Your task to perform on an android device: When is my next meeting? Image 0: 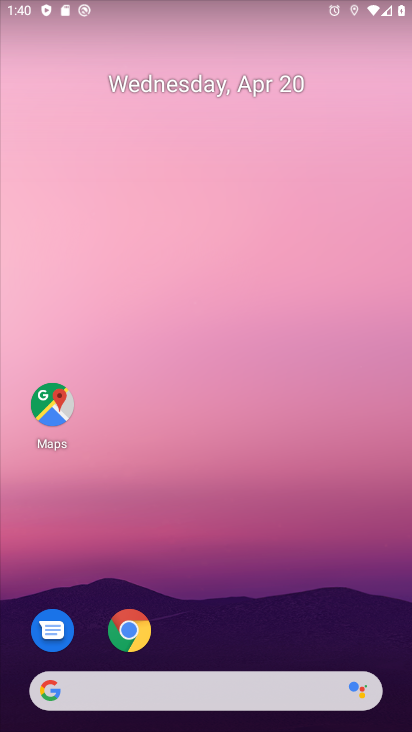
Step 0: drag from (230, 553) to (107, 104)
Your task to perform on an android device: When is my next meeting? Image 1: 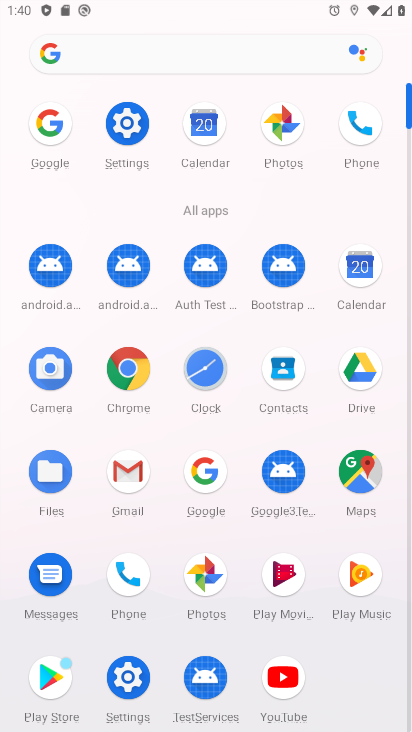
Step 1: click (355, 269)
Your task to perform on an android device: When is my next meeting? Image 2: 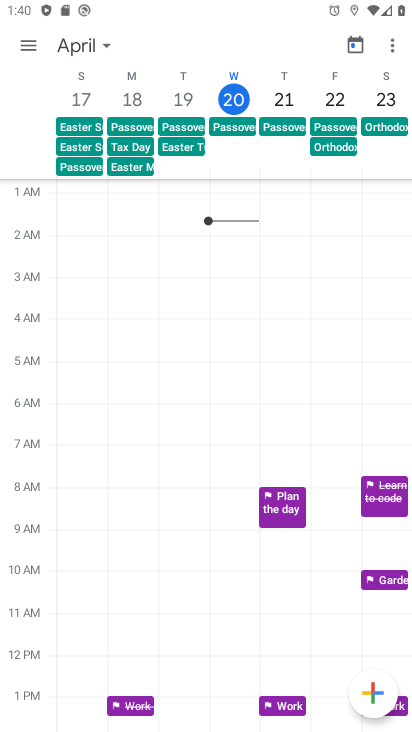
Step 2: drag from (240, 479) to (243, 242)
Your task to perform on an android device: When is my next meeting? Image 3: 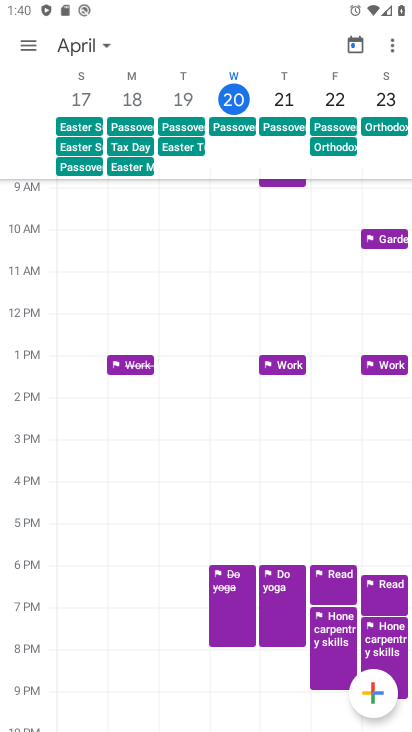
Step 3: drag from (239, 397) to (218, 609)
Your task to perform on an android device: When is my next meeting? Image 4: 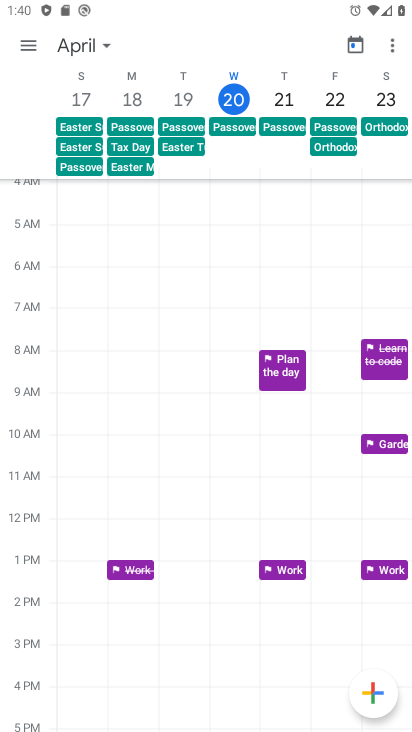
Step 4: drag from (241, 361) to (234, 576)
Your task to perform on an android device: When is my next meeting? Image 5: 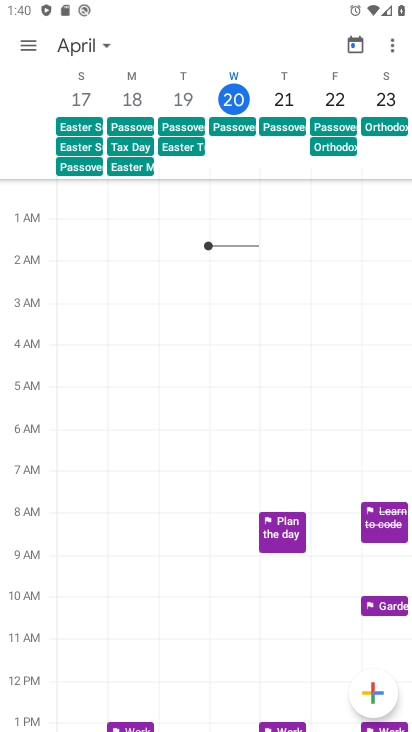
Step 5: drag from (239, 581) to (237, 283)
Your task to perform on an android device: When is my next meeting? Image 6: 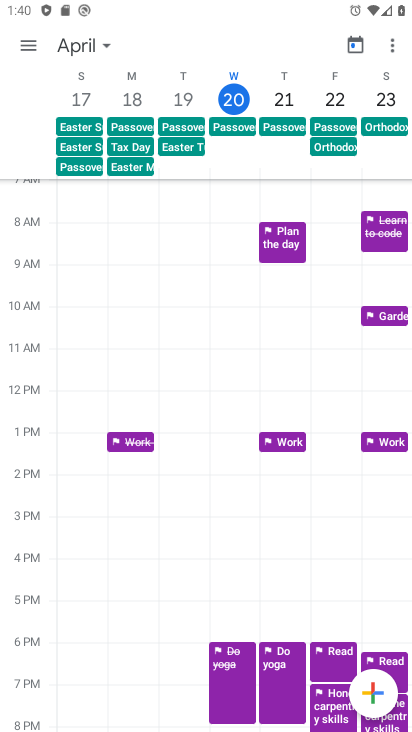
Step 6: drag from (222, 581) to (230, 319)
Your task to perform on an android device: When is my next meeting? Image 7: 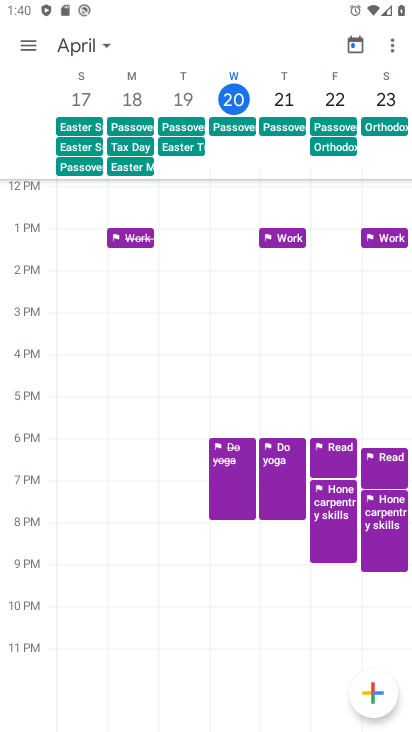
Step 7: click (229, 475)
Your task to perform on an android device: When is my next meeting? Image 8: 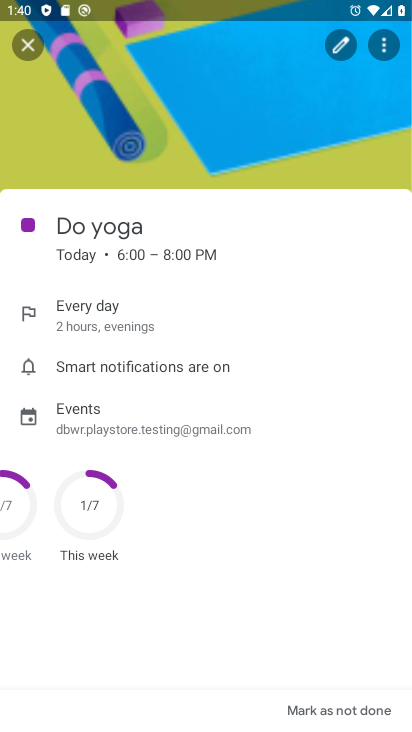
Step 8: task complete